Your task to perform on an android device: Do I have any events tomorrow? Image 0: 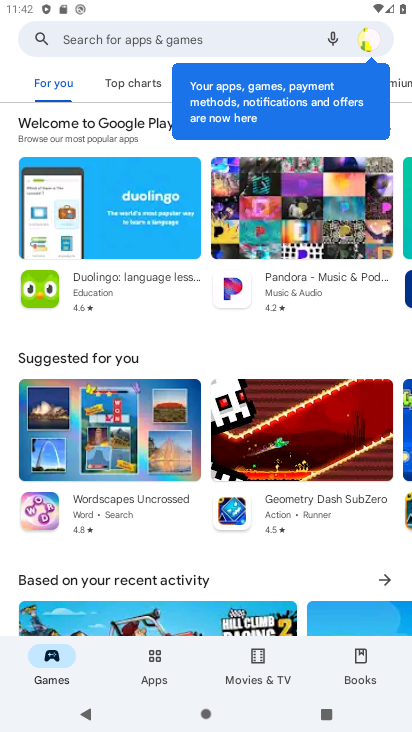
Step 0: press home button
Your task to perform on an android device: Do I have any events tomorrow? Image 1: 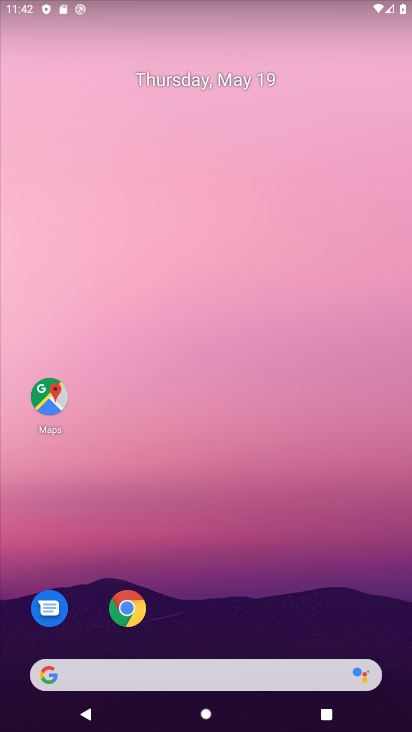
Step 1: drag from (340, 577) to (347, 154)
Your task to perform on an android device: Do I have any events tomorrow? Image 2: 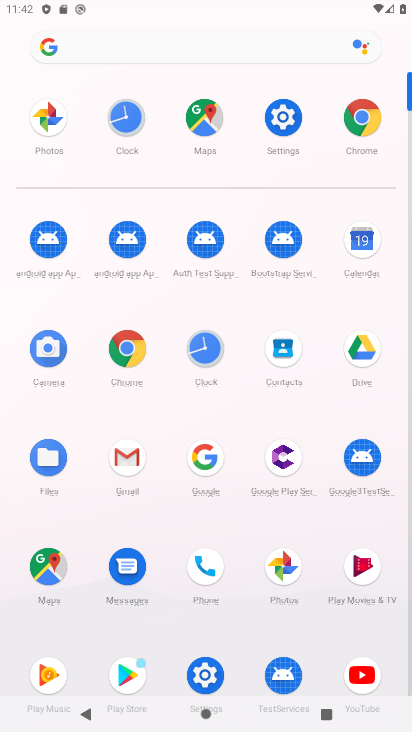
Step 2: click (350, 250)
Your task to perform on an android device: Do I have any events tomorrow? Image 3: 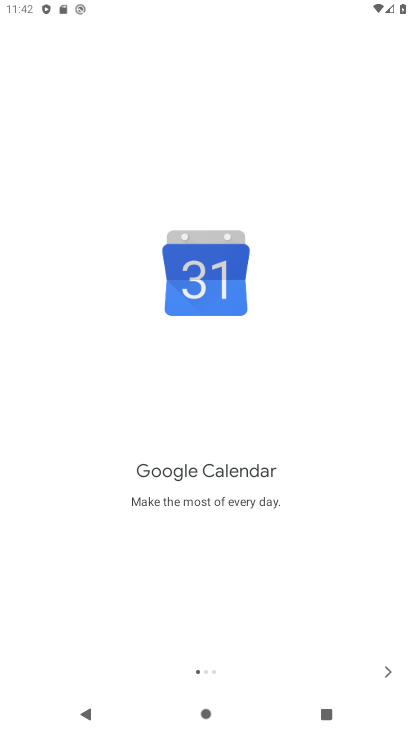
Step 3: click (383, 672)
Your task to perform on an android device: Do I have any events tomorrow? Image 4: 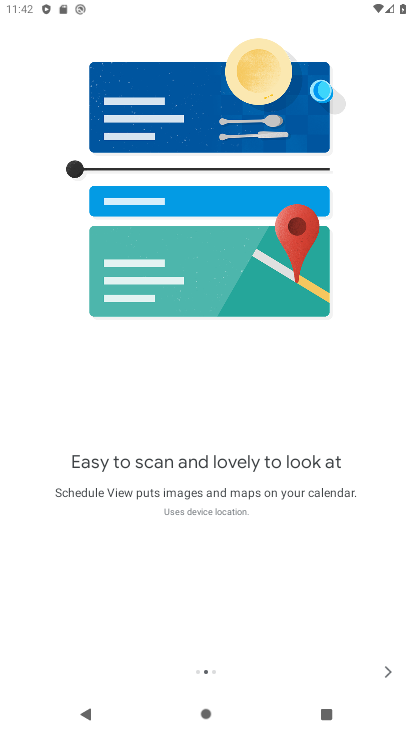
Step 4: click (382, 675)
Your task to perform on an android device: Do I have any events tomorrow? Image 5: 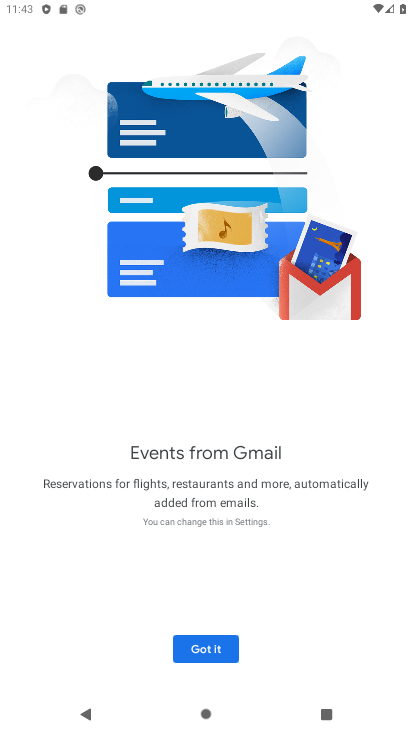
Step 5: click (219, 651)
Your task to perform on an android device: Do I have any events tomorrow? Image 6: 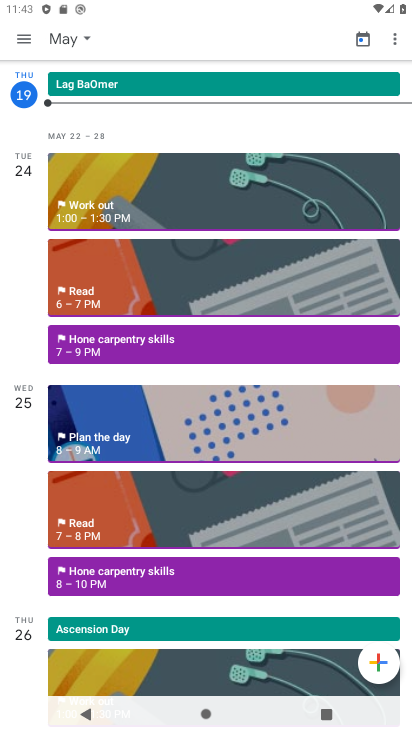
Step 6: click (90, 33)
Your task to perform on an android device: Do I have any events tomorrow? Image 7: 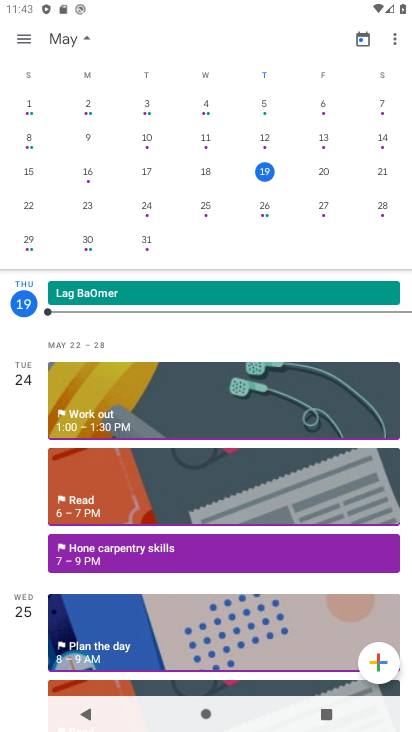
Step 7: click (387, 173)
Your task to perform on an android device: Do I have any events tomorrow? Image 8: 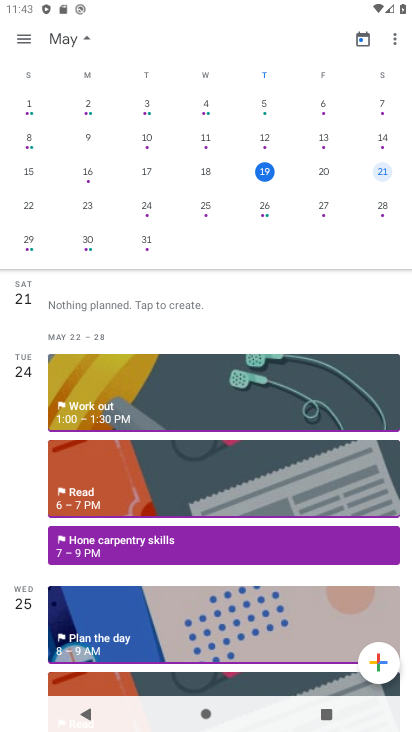
Step 8: task complete